Your task to perform on an android device: delete the emails in spam in the gmail app Image 0: 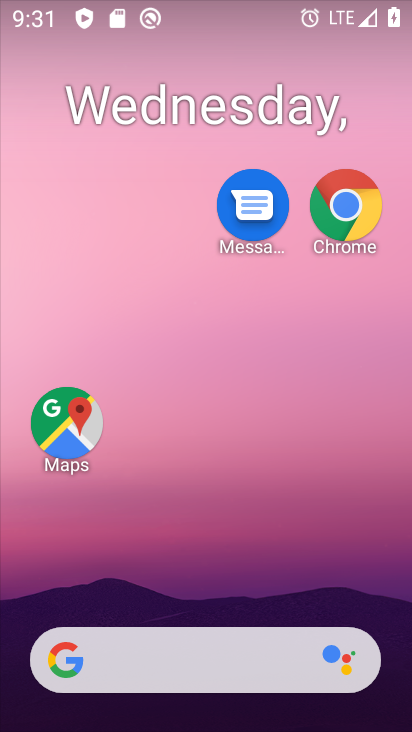
Step 0: drag from (217, 576) to (234, 74)
Your task to perform on an android device: delete the emails in spam in the gmail app Image 1: 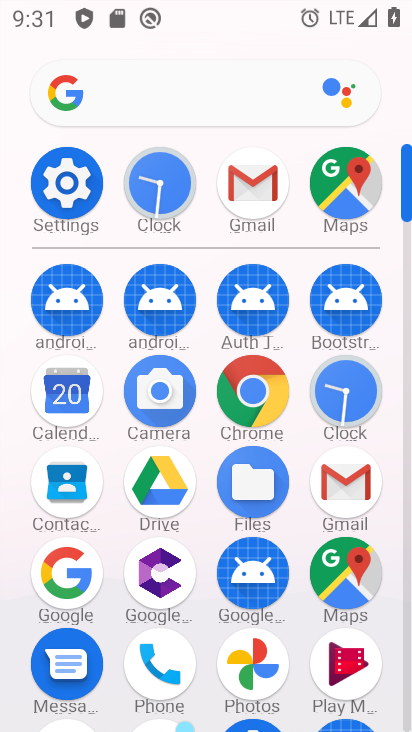
Step 1: click (370, 468)
Your task to perform on an android device: delete the emails in spam in the gmail app Image 2: 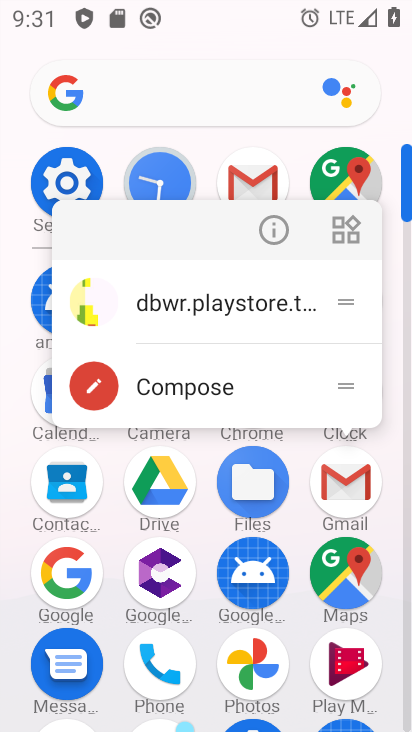
Step 2: click (266, 218)
Your task to perform on an android device: delete the emails in spam in the gmail app Image 3: 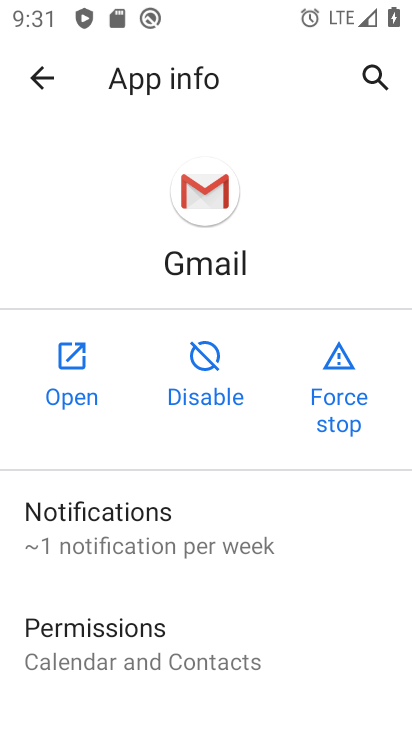
Step 3: click (79, 351)
Your task to perform on an android device: delete the emails in spam in the gmail app Image 4: 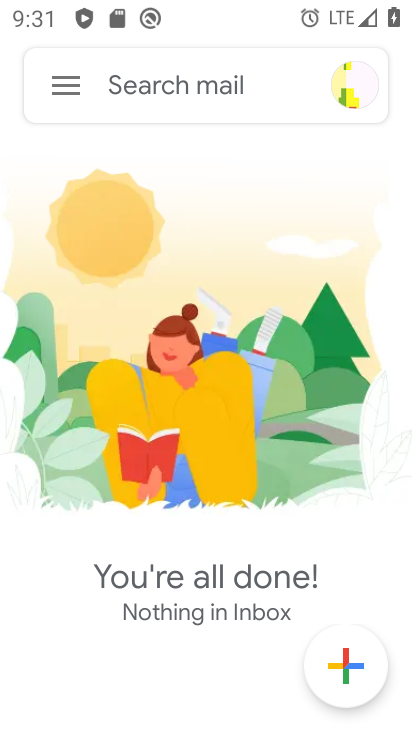
Step 4: click (69, 77)
Your task to perform on an android device: delete the emails in spam in the gmail app Image 5: 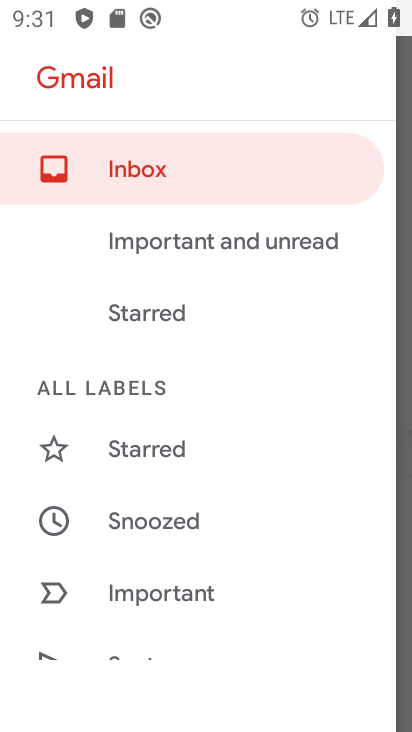
Step 5: drag from (211, 587) to (249, 103)
Your task to perform on an android device: delete the emails in spam in the gmail app Image 6: 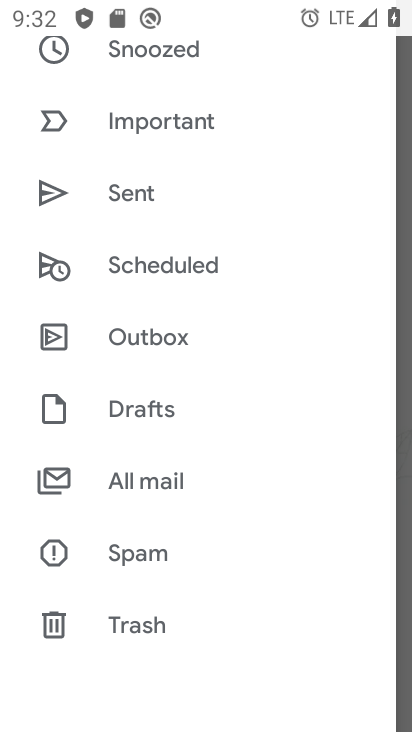
Step 6: click (162, 564)
Your task to perform on an android device: delete the emails in spam in the gmail app Image 7: 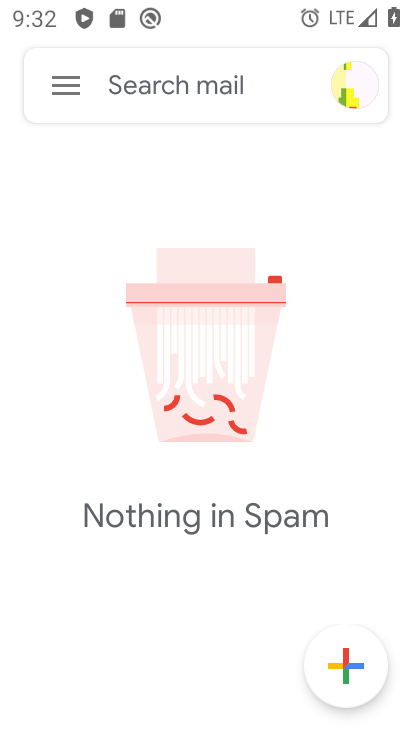
Step 7: task complete